Your task to perform on an android device: turn pop-ups off in chrome Image 0: 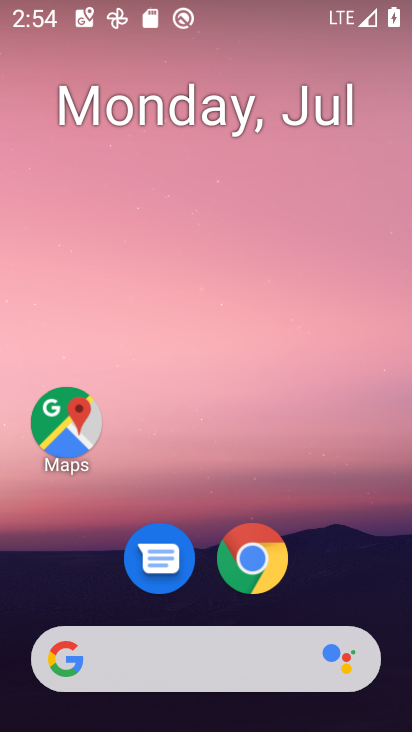
Step 0: press home button
Your task to perform on an android device: turn pop-ups off in chrome Image 1: 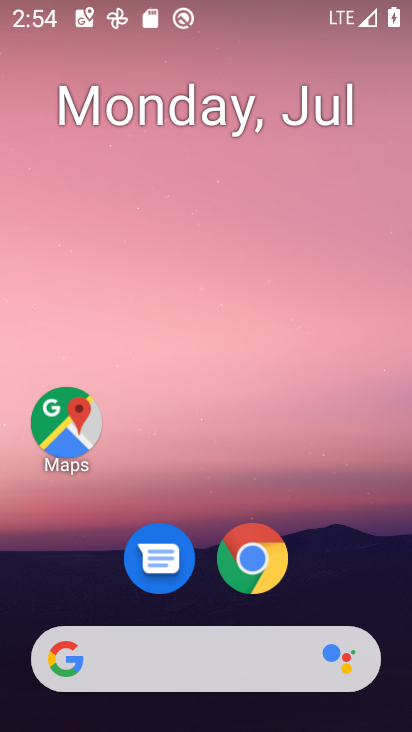
Step 1: drag from (371, 557) to (381, 176)
Your task to perform on an android device: turn pop-ups off in chrome Image 2: 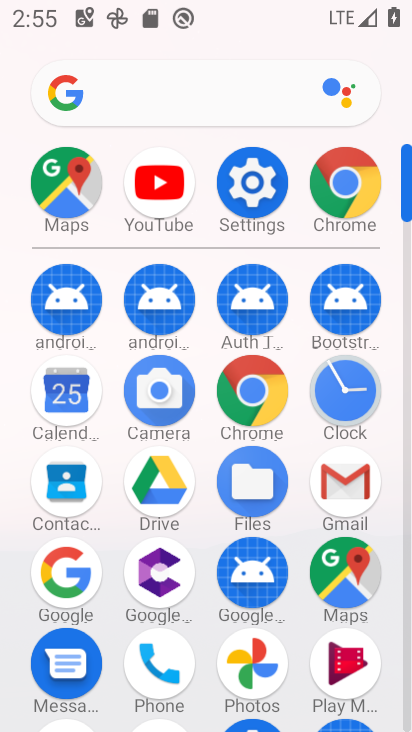
Step 2: click (263, 396)
Your task to perform on an android device: turn pop-ups off in chrome Image 3: 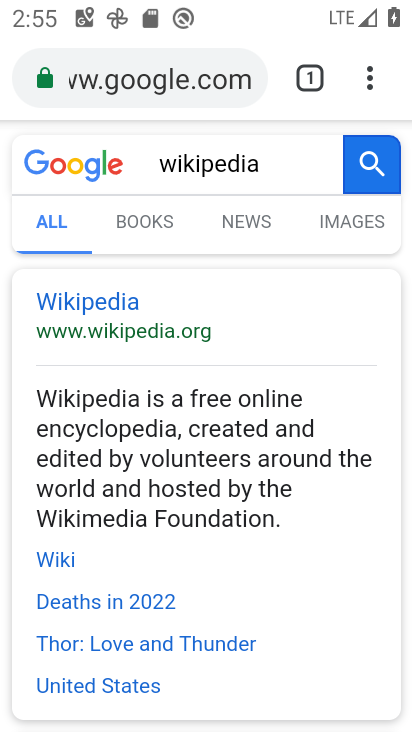
Step 3: click (365, 84)
Your task to perform on an android device: turn pop-ups off in chrome Image 4: 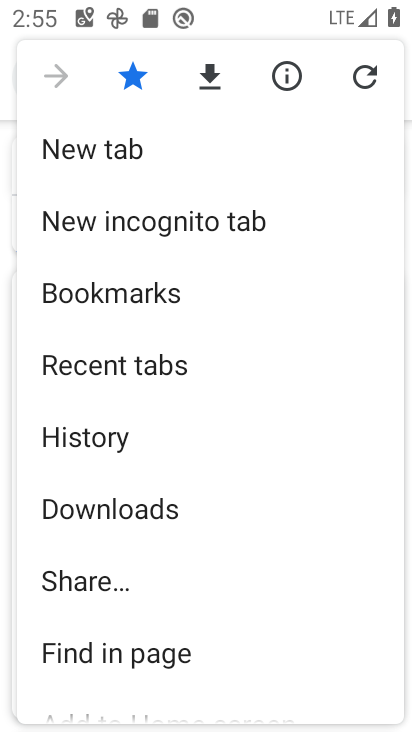
Step 4: drag from (342, 394) to (337, 304)
Your task to perform on an android device: turn pop-ups off in chrome Image 5: 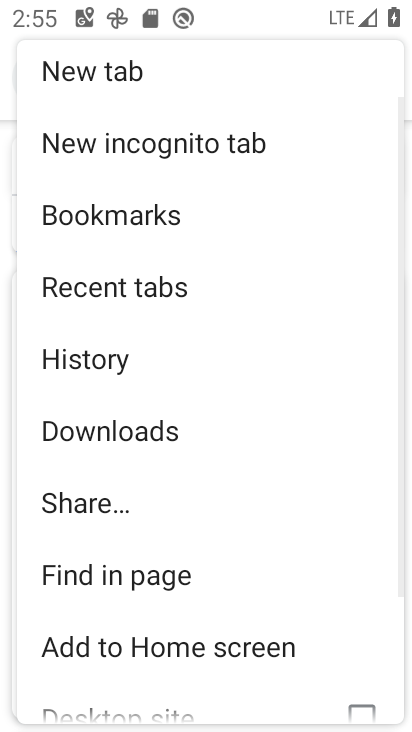
Step 5: drag from (339, 435) to (324, 321)
Your task to perform on an android device: turn pop-ups off in chrome Image 6: 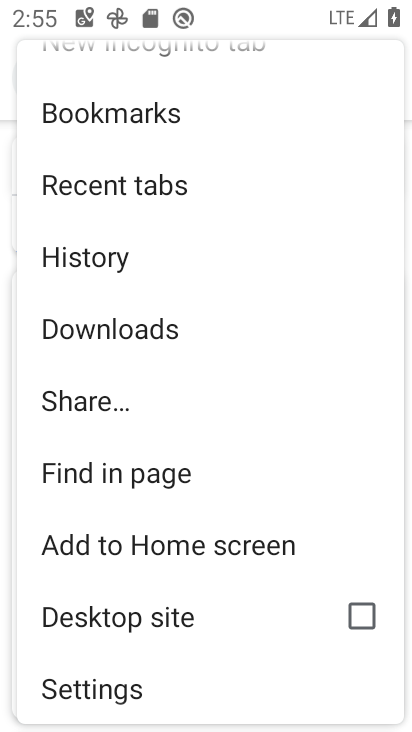
Step 6: drag from (314, 450) to (272, 237)
Your task to perform on an android device: turn pop-ups off in chrome Image 7: 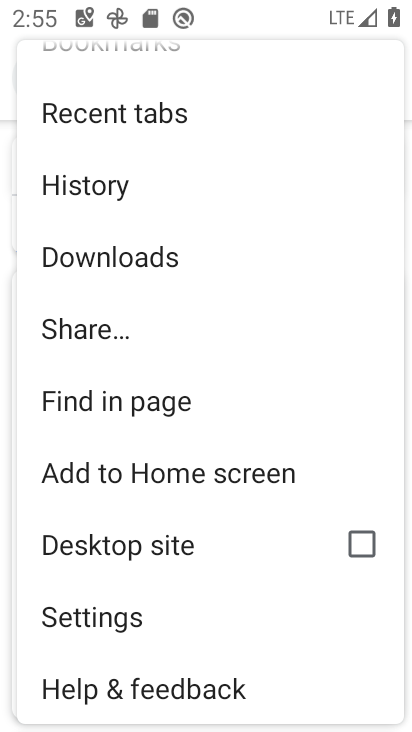
Step 7: click (168, 618)
Your task to perform on an android device: turn pop-ups off in chrome Image 8: 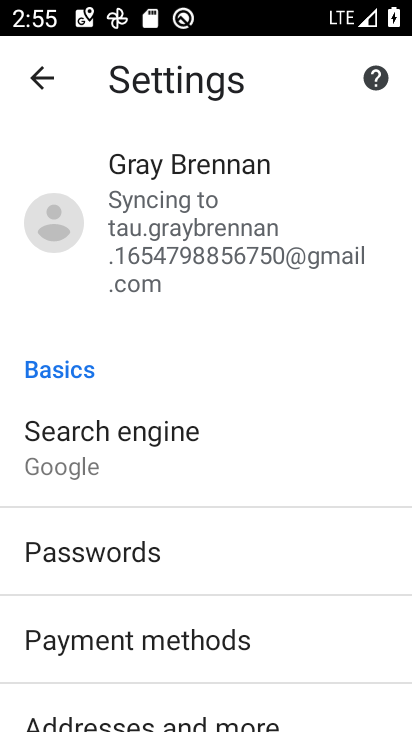
Step 8: drag from (302, 553) to (332, 360)
Your task to perform on an android device: turn pop-ups off in chrome Image 9: 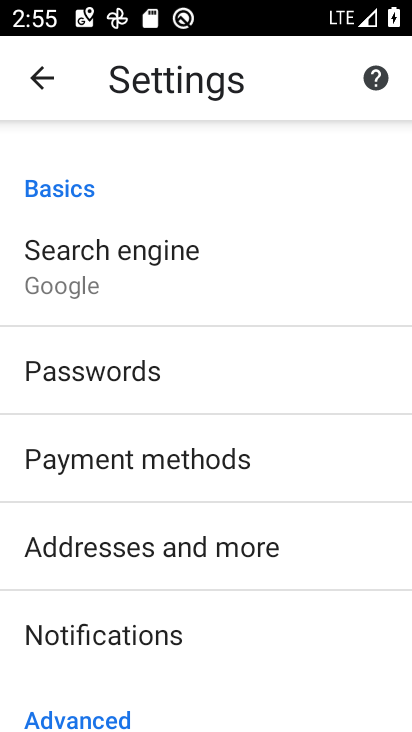
Step 9: drag from (344, 534) to (329, 398)
Your task to perform on an android device: turn pop-ups off in chrome Image 10: 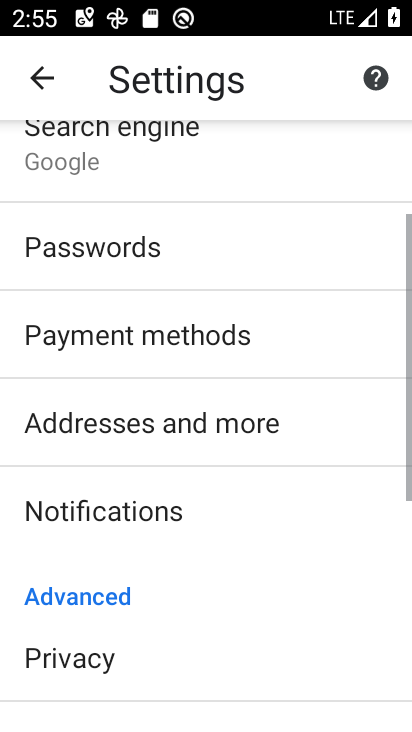
Step 10: drag from (342, 561) to (317, 361)
Your task to perform on an android device: turn pop-ups off in chrome Image 11: 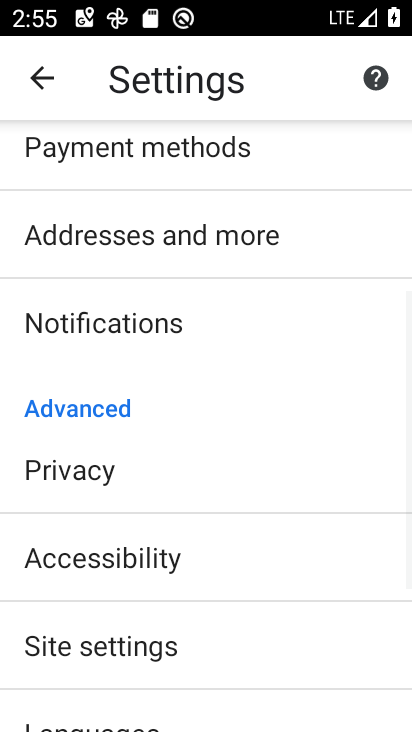
Step 11: drag from (296, 498) to (299, 324)
Your task to perform on an android device: turn pop-ups off in chrome Image 12: 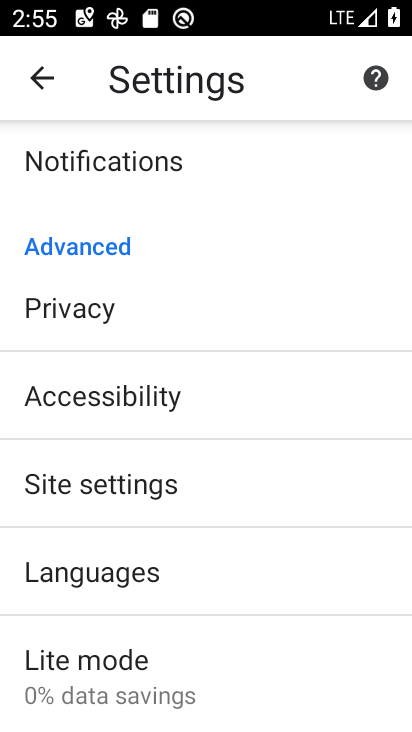
Step 12: click (329, 477)
Your task to perform on an android device: turn pop-ups off in chrome Image 13: 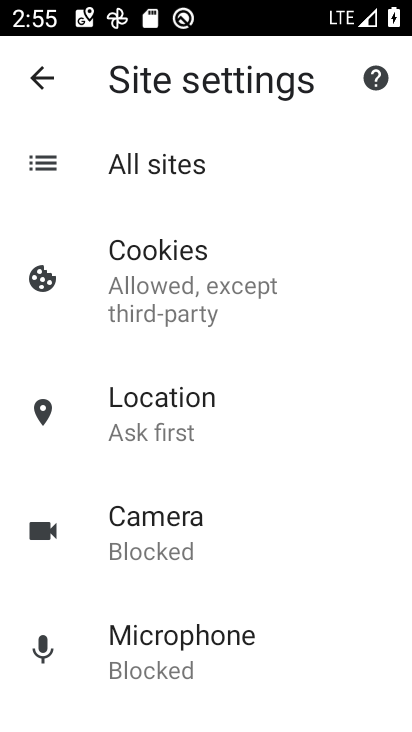
Step 13: drag from (320, 547) to (305, 388)
Your task to perform on an android device: turn pop-ups off in chrome Image 14: 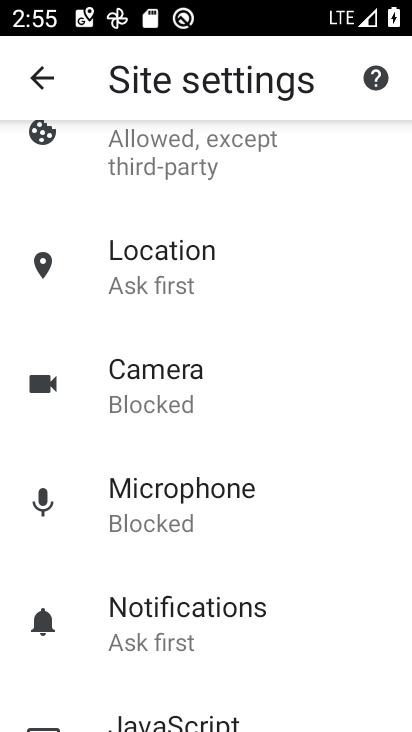
Step 14: drag from (324, 576) to (324, 400)
Your task to perform on an android device: turn pop-ups off in chrome Image 15: 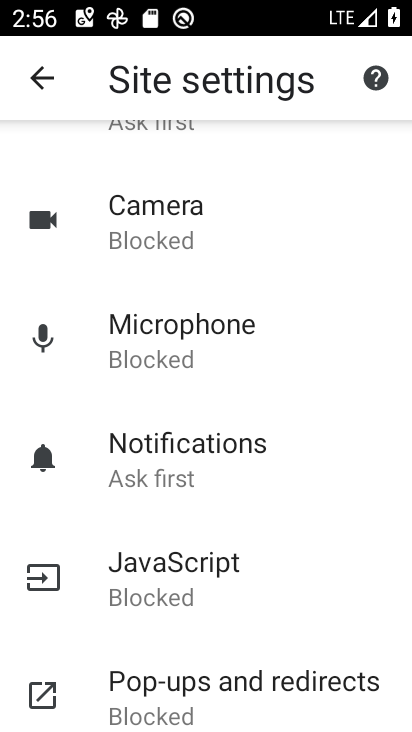
Step 15: drag from (312, 623) to (314, 453)
Your task to perform on an android device: turn pop-ups off in chrome Image 16: 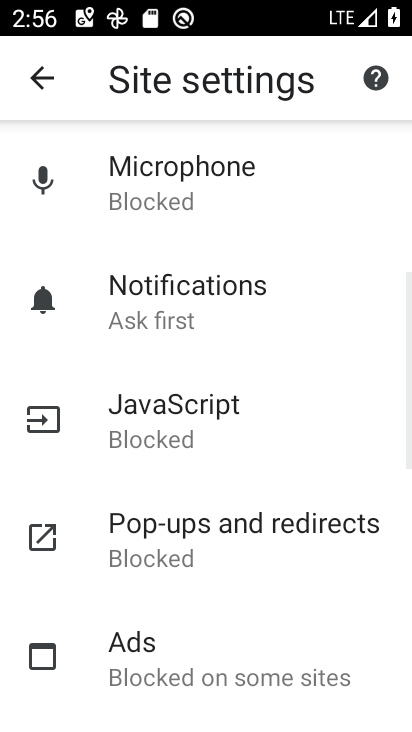
Step 16: click (317, 528)
Your task to perform on an android device: turn pop-ups off in chrome Image 17: 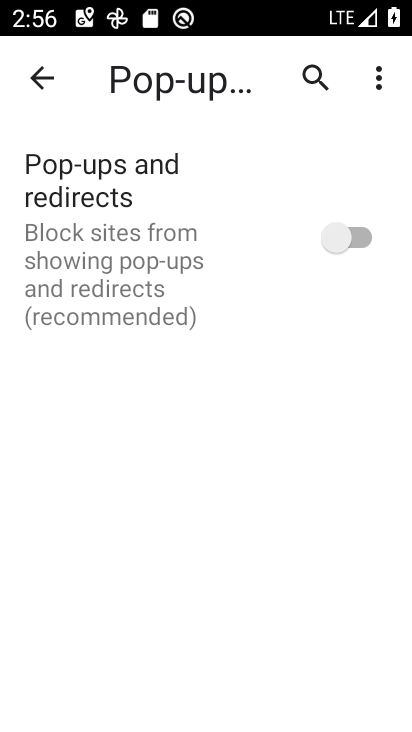
Step 17: task complete